Your task to perform on an android device: Open the calendar and show me this week's events? Image 0: 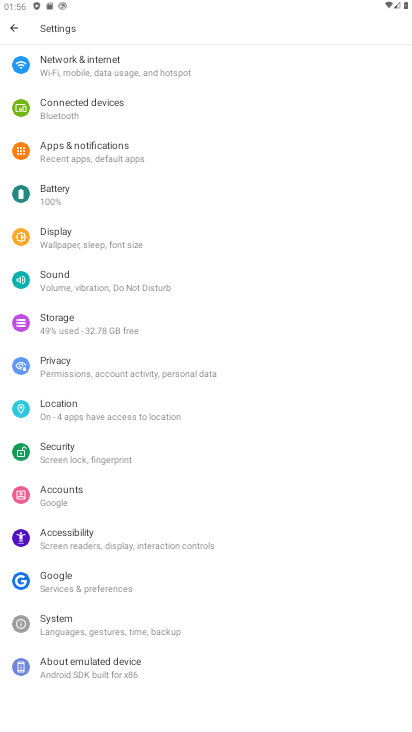
Step 0: press home button
Your task to perform on an android device: Open the calendar and show me this week's events? Image 1: 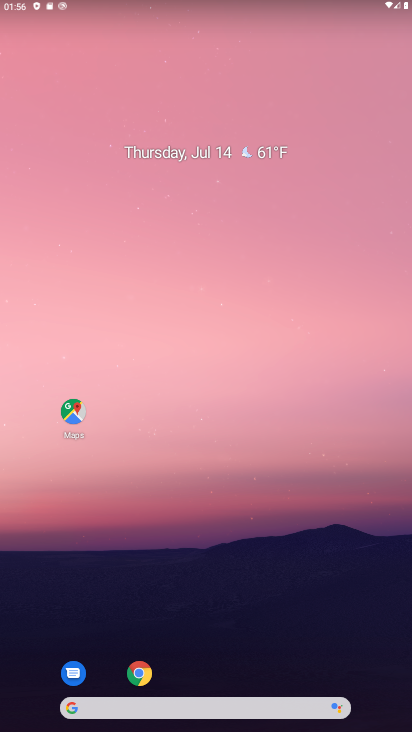
Step 1: drag from (222, 669) to (200, 171)
Your task to perform on an android device: Open the calendar and show me this week's events? Image 2: 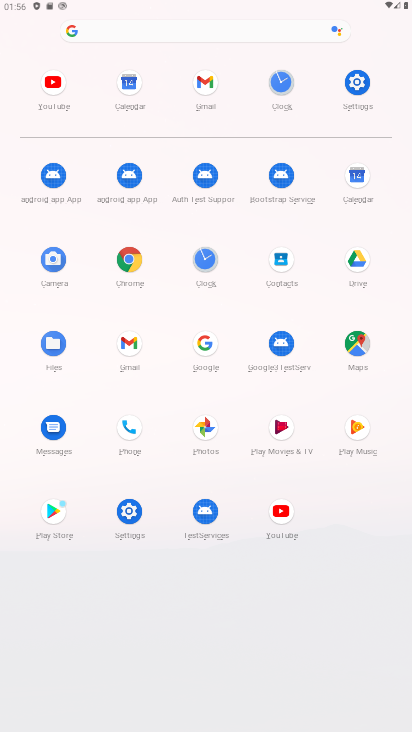
Step 2: click (340, 171)
Your task to perform on an android device: Open the calendar and show me this week's events? Image 3: 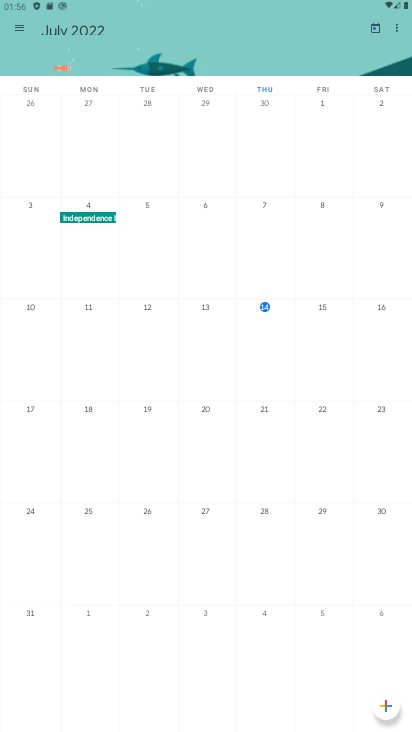
Step 3: task complete